Your task to perform on an android device: change text size in settings app Image 0: 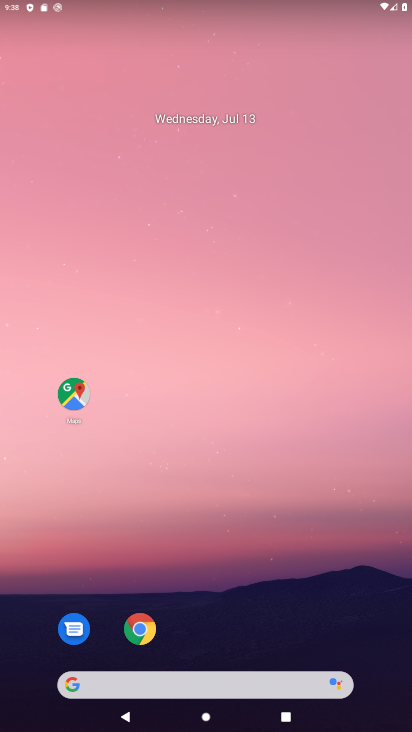
Step 0: drag from (218, 607) to (216, 236)
Your task to perform on an android device: change text size in settings app Image 1: 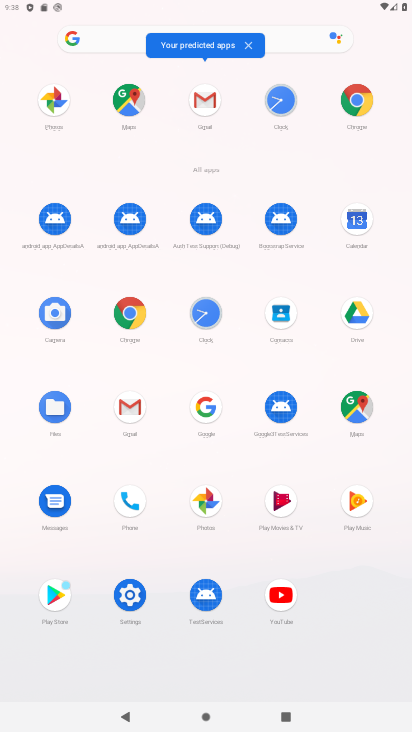
Step 1: click (124, 583)
Your task to perform on an android device: change text size in settings app Image 2: 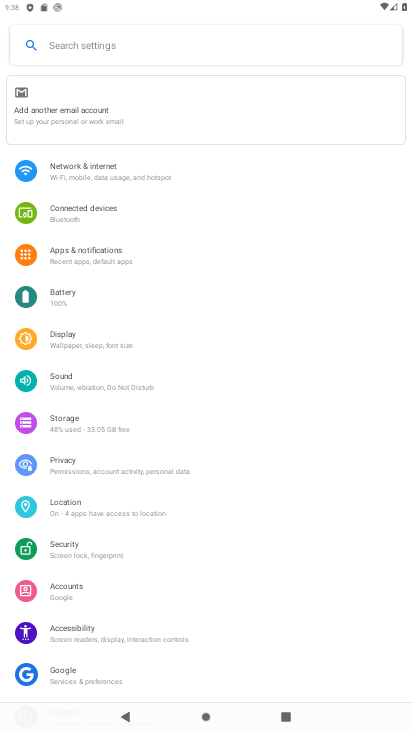
Step 2: click (76, 384)
Your task to perform on an android device: change text size in settings app Image 3: 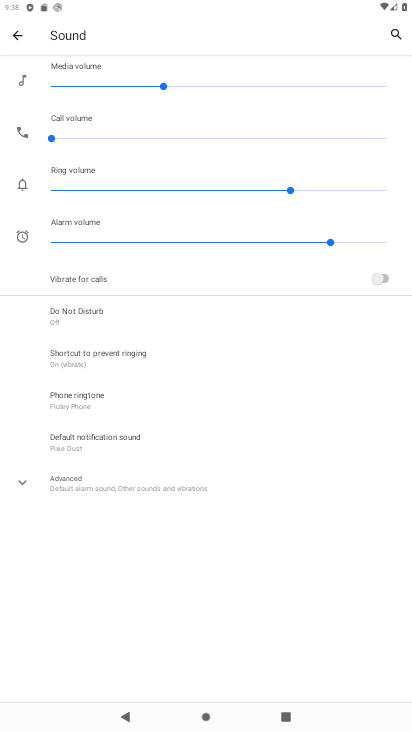
Step 3: click (19, 32)
Your task to perform on an android device: change text size in settings app Image 4: 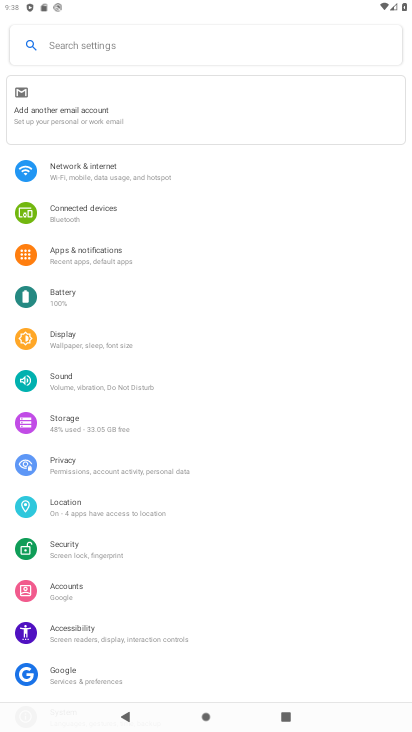
Step 4: drag from (133, 629) to (183, 264)
Your task to perform on an android device: change text size in settings app Image 5: 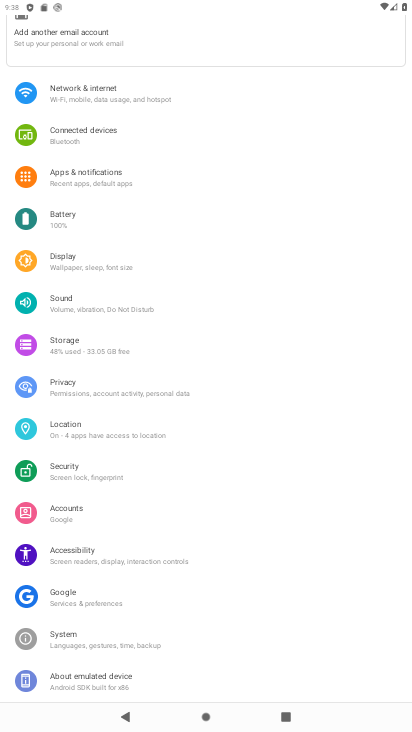
Step 5: click (112, 635)
Your task to perform on an android device: change text size in settings app Image 6: 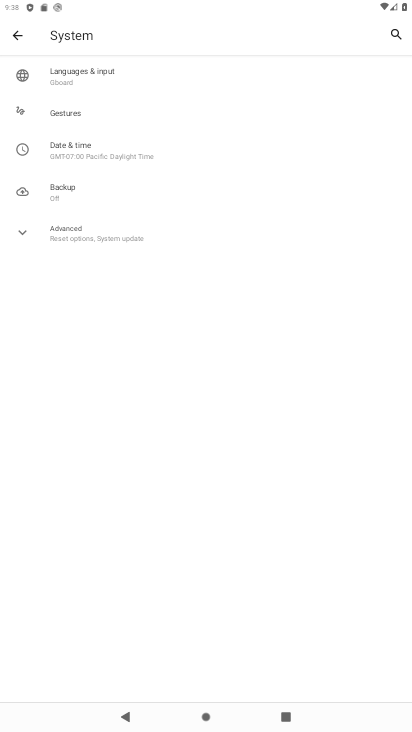
Step 6: click (20, 31)
Your task to perform on an android device: change text size in settings app Image 7: 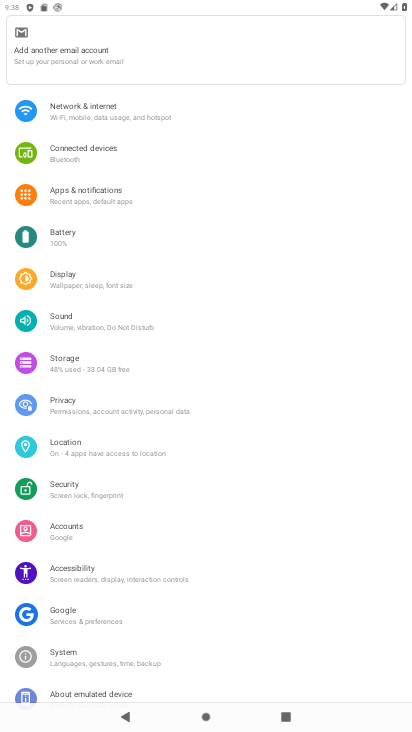
Step 7: click (91, 586)
Your task to perform on an android device: change text size in settings app Image 8: 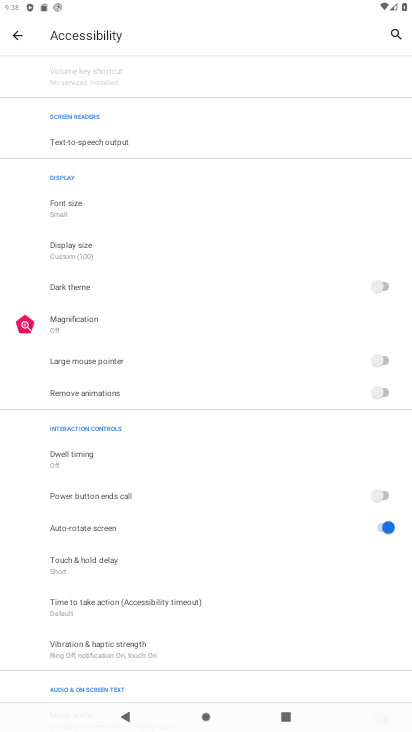
Step 8: click (82, 200)
Your task to perform on an android device: change text size in settings app Image 9: 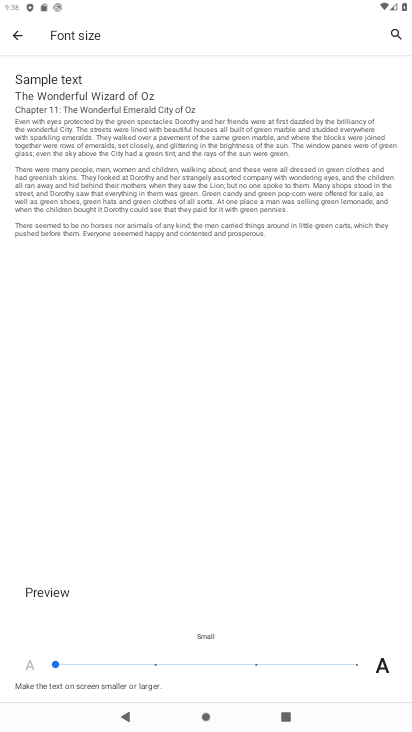
Step 9: click (153, 658)
Your task to perform on an android device: change text size in settings app Image 10: 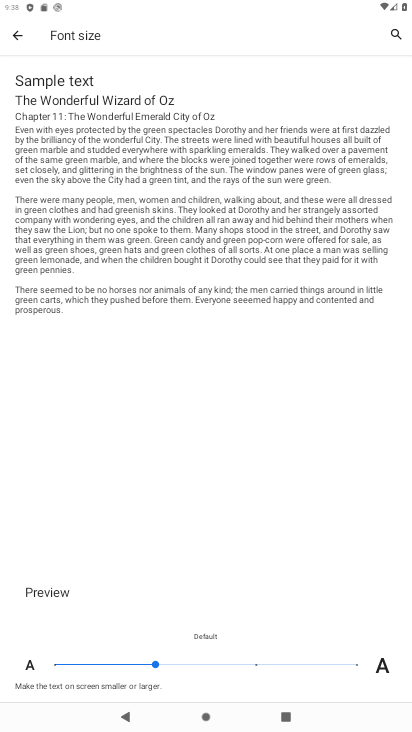
Step 10: click (226, 658)
Your task to perform on an android device: change text size in settings app Image 11: 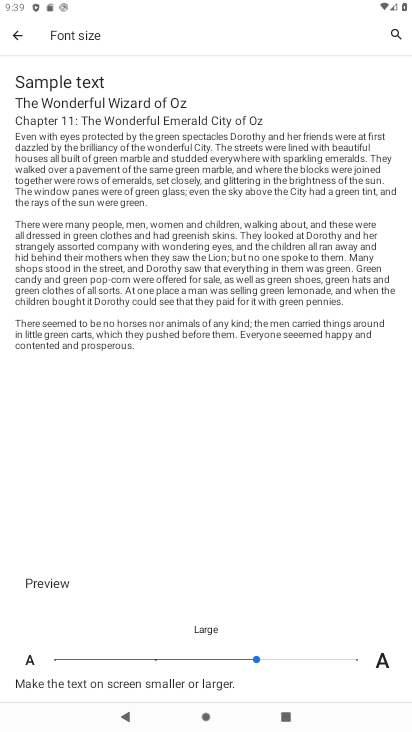
Step 11: task complete